Your task to perform on an android device: open device folders in google photos Image 0: 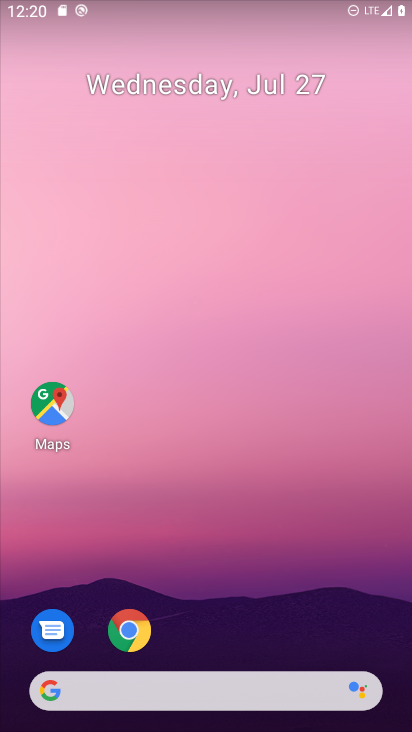
Step 0: drag from (389, 641) to (371, 272)
Your task to perform on an android device: open device folders in google photos Image 1: 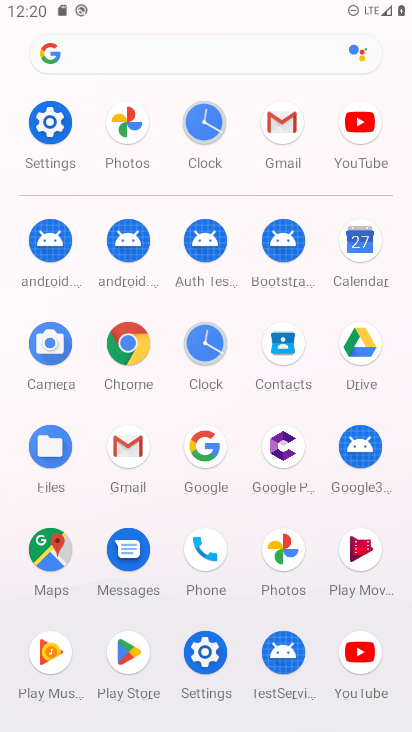
Step 1: click (283, 550)
Your task to perform on an android device: open device folders in google photos Image 2: 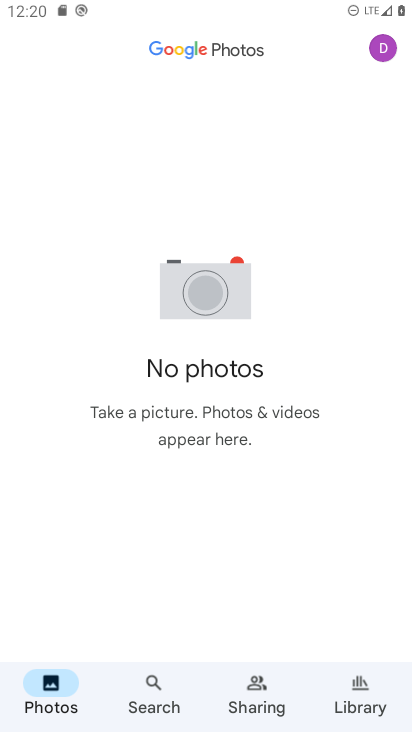
Step 2: task complete